Your task to perform on an android device: Open battery settings Image 0: 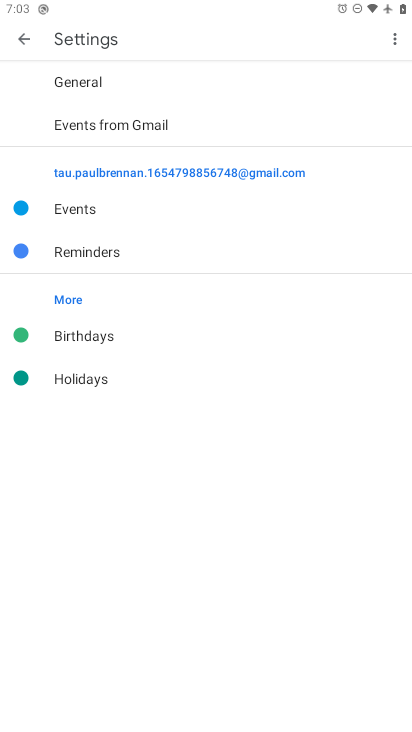
Step 0: press home button
Your task to perform on an android device: Open battery settings Image 1: 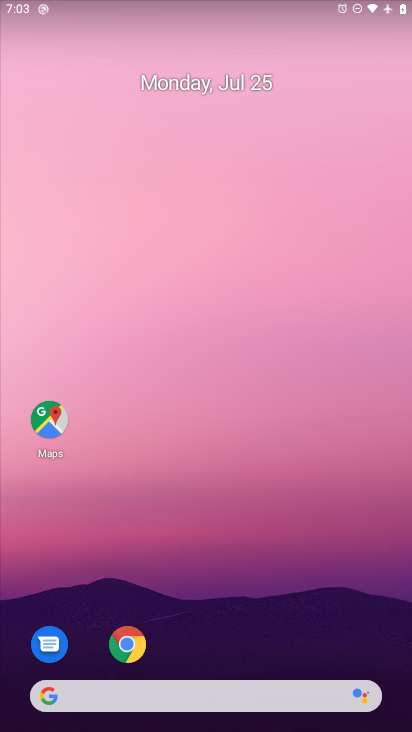
Step 1: drag from (236, 632) to (218, 200)
Your task to perform on an android device: Open battery settings Image 2: 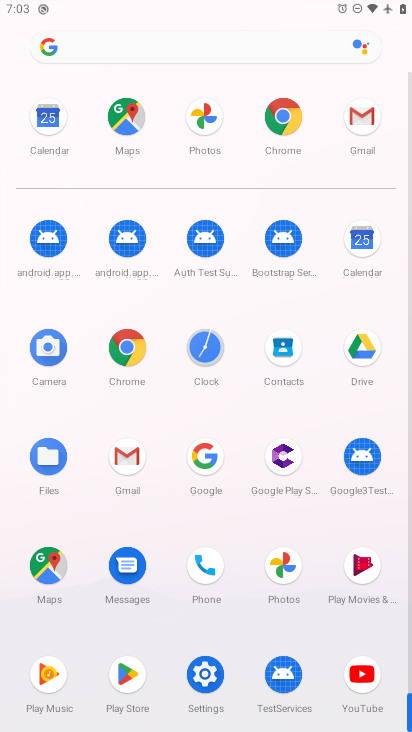
Step 2: click (197, 680)
Your task to perform on an android device: Open battery settings Image 3: 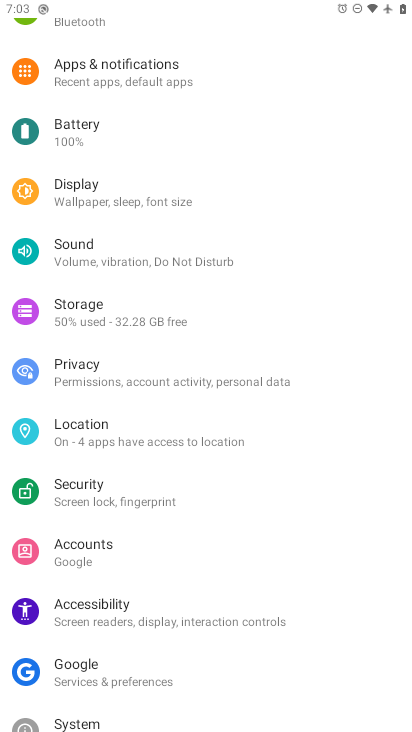
Step 3: click (75, 126)
Your task to perform on an android device: Open battery settings Image 4: 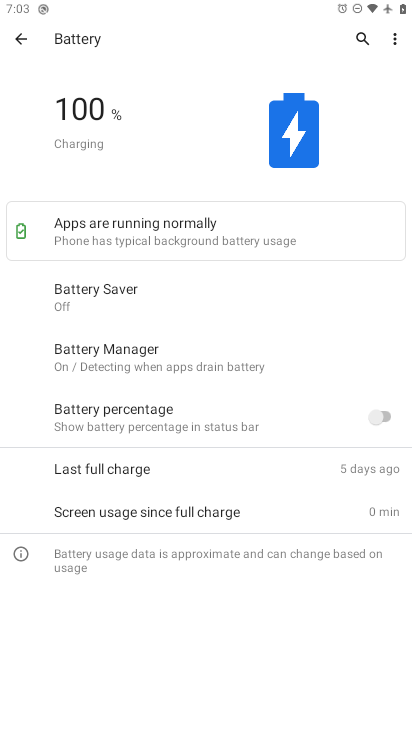
Step 4: task complete